Your task to perform on an android device: Open Chrome and go to the settings page Image 0: 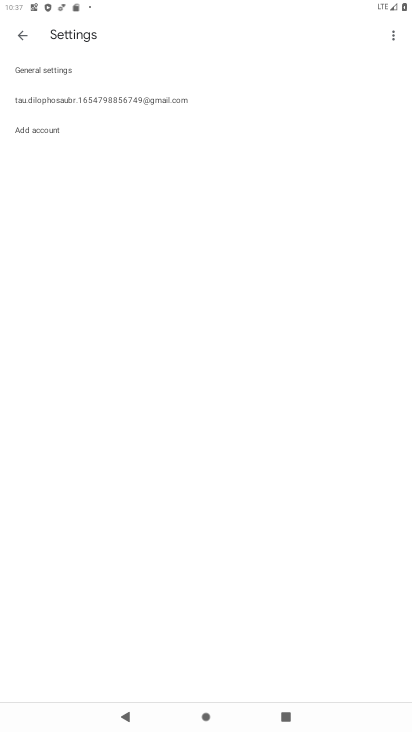
Step 0: press home button
Your task to perform on an android device: Open Chrome and go to the settings page Image 1: 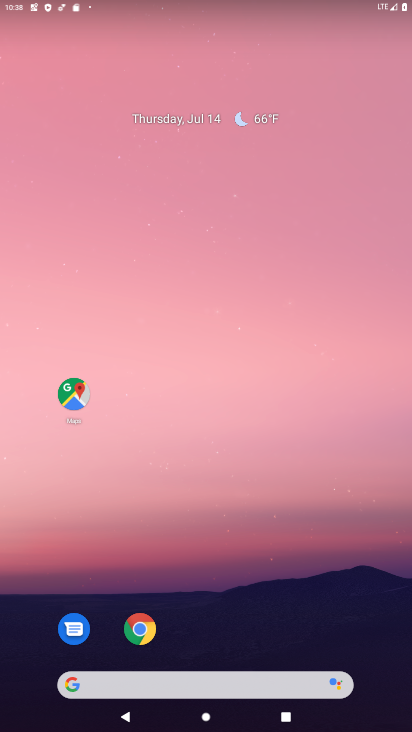
Step 1: click (141, 627)
Your task to perform on an android device: Open Chrome and go to the settings page Image 2: 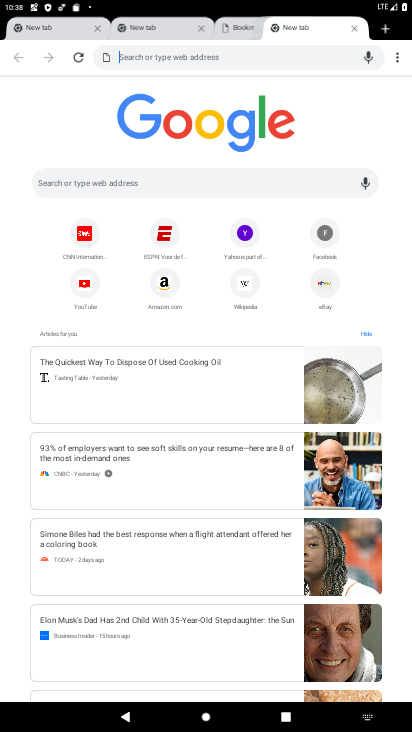
Step 2: task complete